Your task to perform on an android device: open chrome and create a bookmark for the current page Image 0: 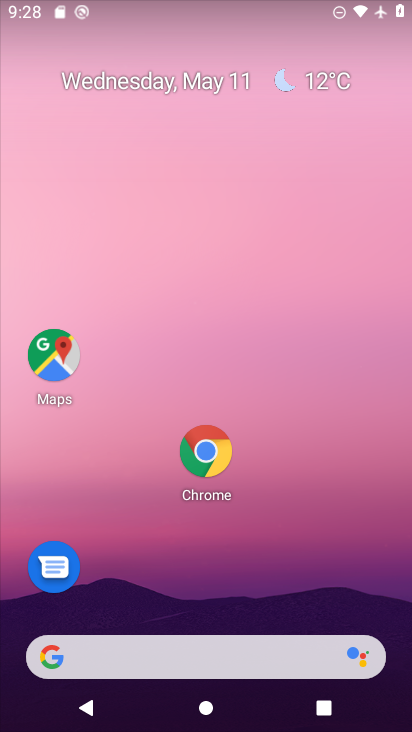
Step 0: press home button
Your task to perform on an android device: open chrome and create a bookmark for the current page Image 1: 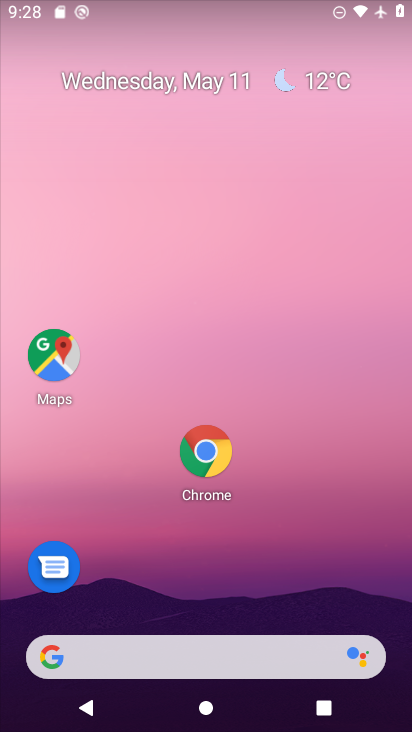
Step 1: click (223, 452)
Your task to perform on an android device: open chrome and create a bookmark for the current page Image 2: 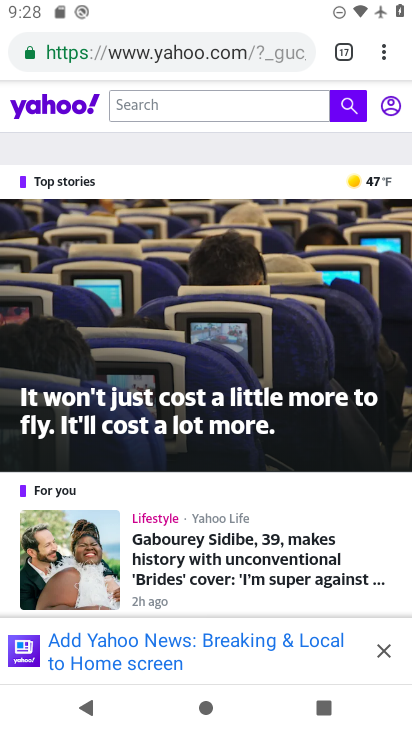
Step 2: click (381, 64)
Your task to perform on an android device: open chrome and create a bookmark for the current page Image 3: 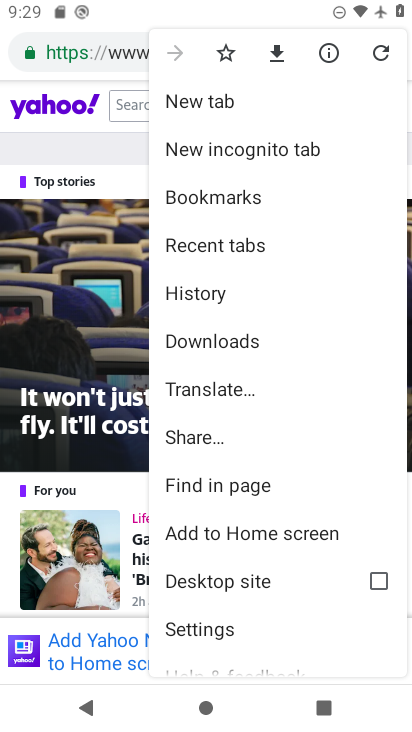
Step 3: click (225, 54)
Your task to perform on an android device: open chrome and create a bookmark for the current page Image 4: 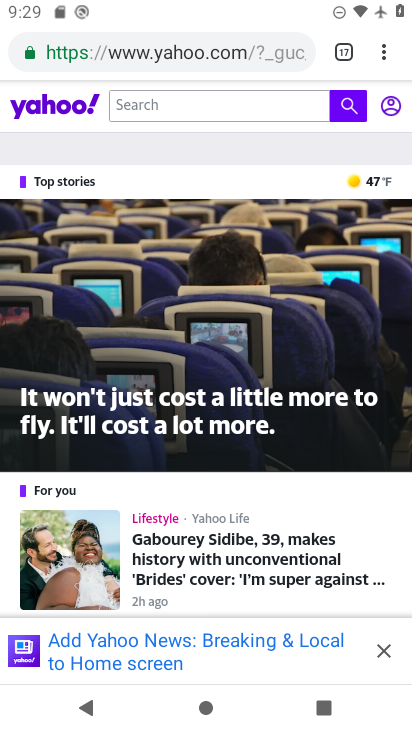
Step 4: task complete